Your task to perform on an android device: What's the weather going to be tomorrow? Image 0: 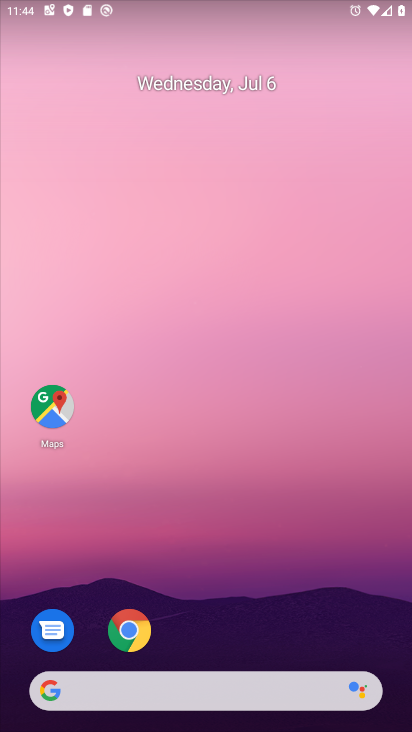
Step 0: drag from (241, 577) to (189, 199)
Your task to perform on an android device: What's the weather going to be tomorrow? Image 1: 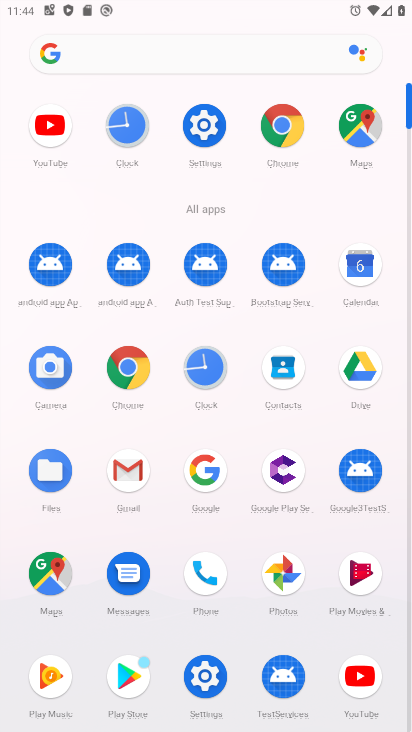
Step 1: click (277, 138)
Your task to perform on an android device: What's the weather going to be tomorrow? Image 2: 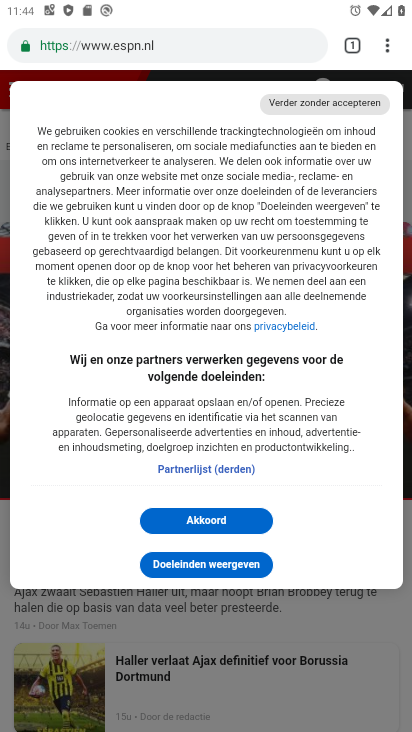
Step 2: click (222, 45)
Your task to perform on an android device: What's the weather going to be tomorrow? Image 3: 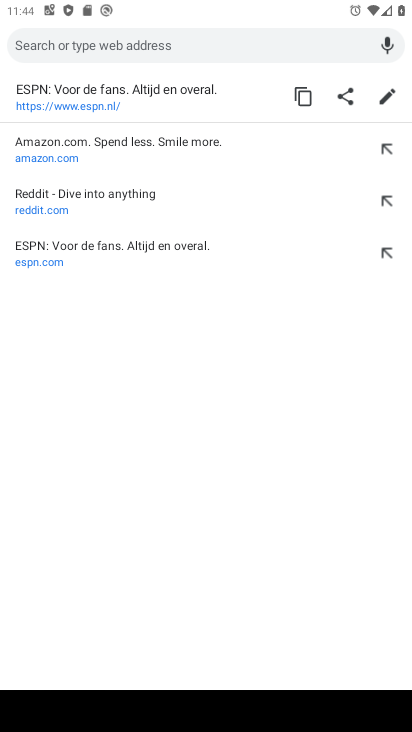
Step 3: type "What's the weather going to be tomorrow?"
Your task to perform on an android device: What's the weather going to be tomorrow? Image 4: 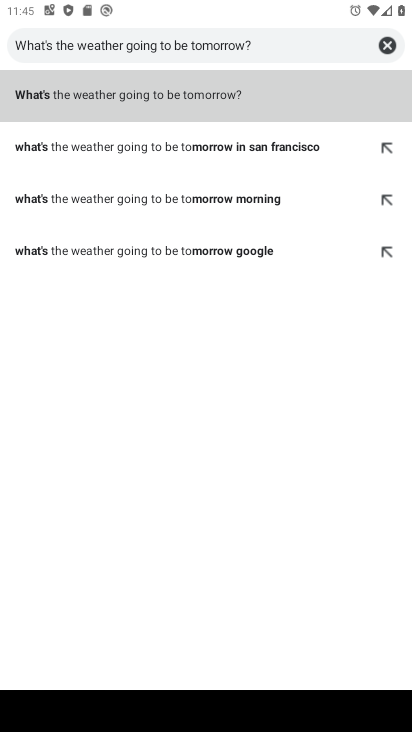
Step 4: click (230, 103)
Your task to perform on an android device: What's the weather going to be tomorrow? Image 5: 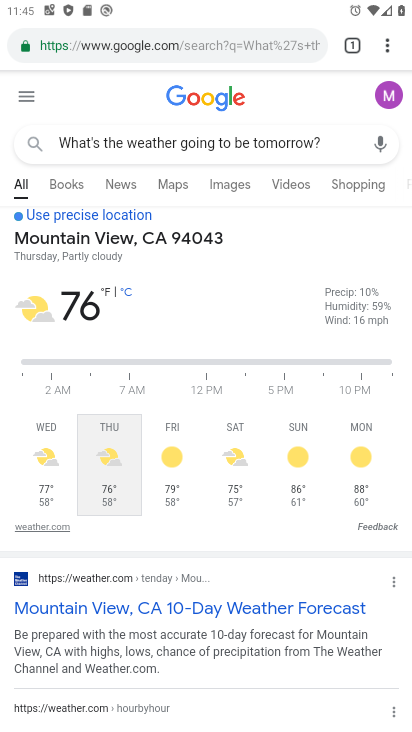
Step 5: task complete